Your task to perform on an android device: stop showing notifications on the lock screen Image 0: 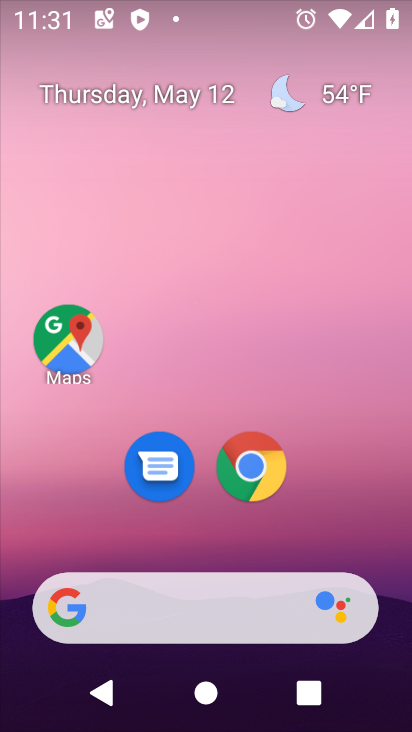
Step 0: drag from (400, 518) to (353, 172)
Your task to perform on an android device: stop showing notifications on the lock screen Image 1: 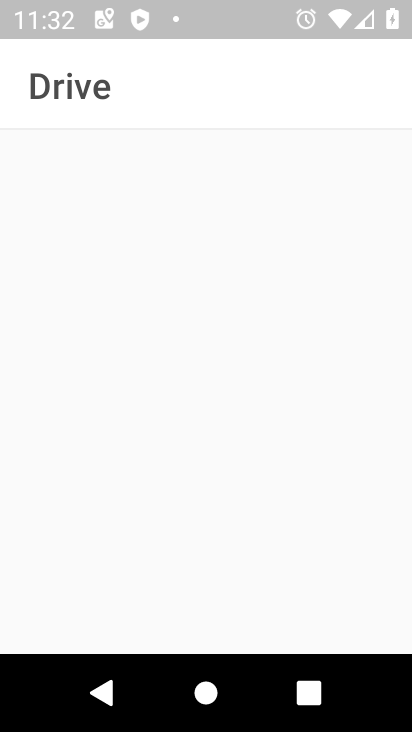
Step 1: press home button
Your task to perform on an android device: stop showing notifications on the lock screen Image 2: 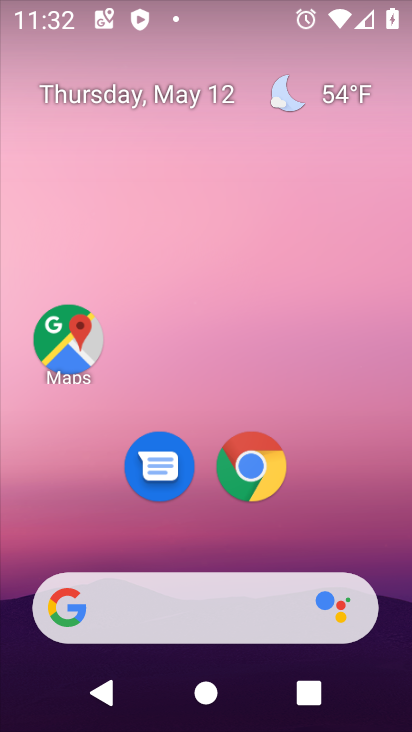
Step 2: drag from (381, 501) to (354, 122)
Your task to perform on an android device: stop showing notifications on the lock screen Image 3: 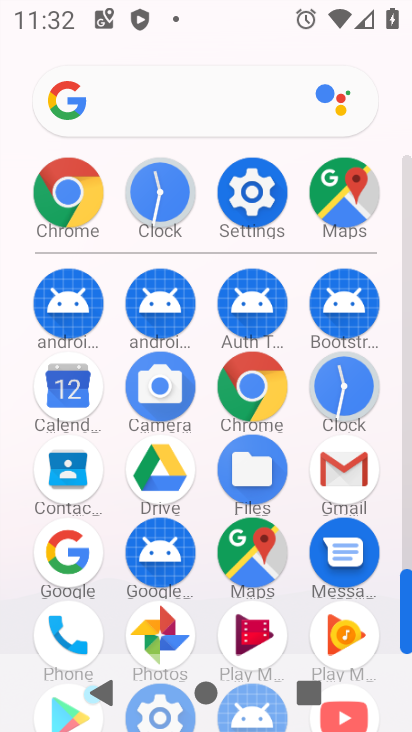
Step 3: drag from (386, 596) to (388, 305)
Your task to perform on an android device: stop showing notifications on the lock screen Image 4: 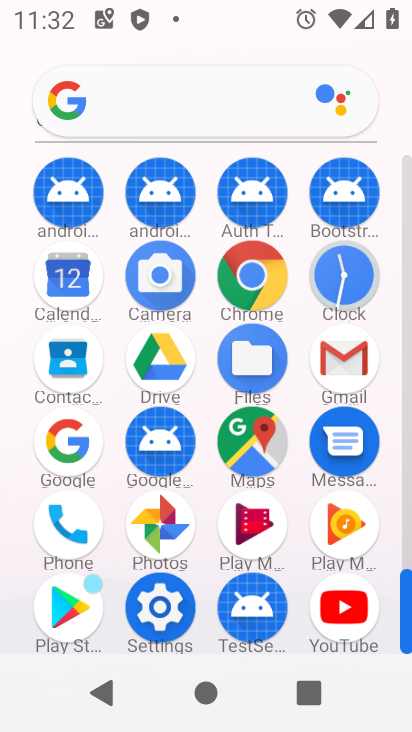
Step 4: click (173, 587)
Your task to perform on an android device: stop showing notifications on the lock screen Image 5: 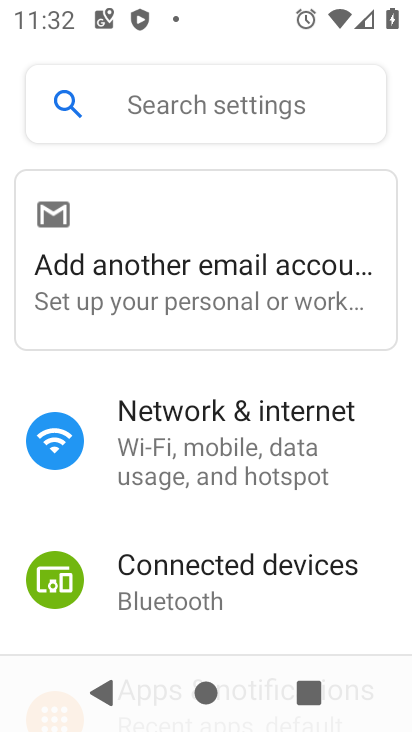
Step 5: drag from (223, 631) to (279, 376)
Your task to perform on an android device: stop showing notifications on the lock screen Image 6: 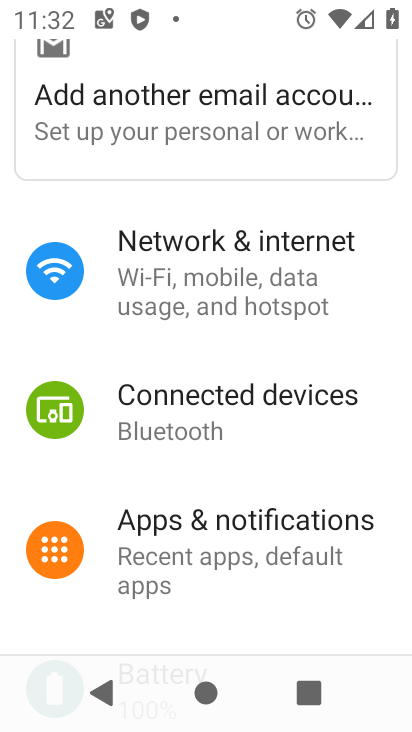
Step 6: click (261, 523)
Your task to perform on an android device: stop showing notifications on the lock screen Image 7: 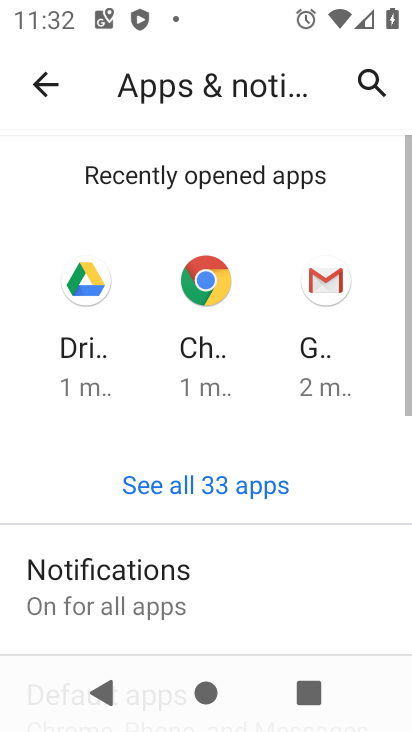
Step 7: drag from (275, 583) to (282, 185)
Your task to perform on an android device: stop showing notifications on the lock screen Image 8: 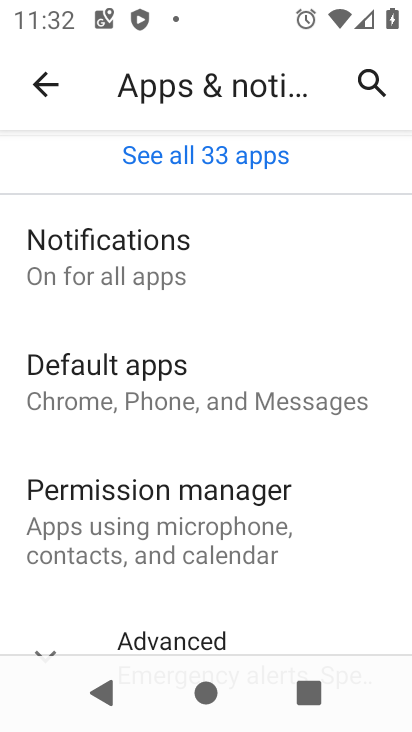
Step 8: click (169, 259)
Your task to perform on an android device: stop showing notifications on the lock screen Image 9: 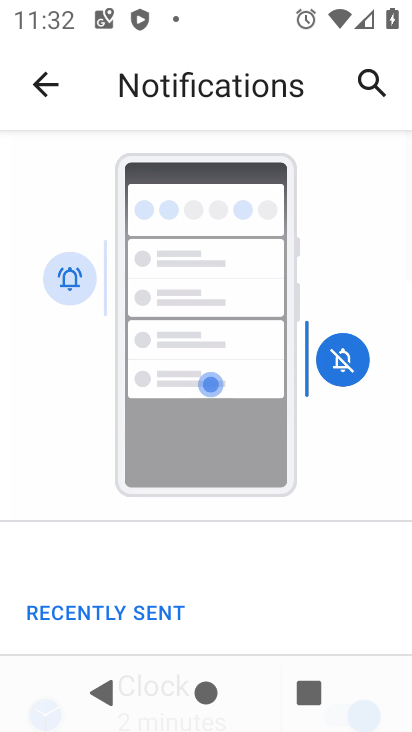
Step 9: drag from (162, 584) to (358, 240)
Your task to perform on an android device: stop showing notifications on the lock screen Image 10: 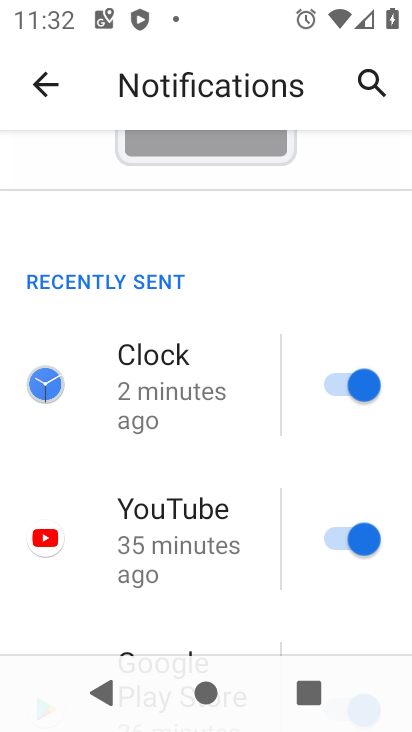
Step 10: drag from (191, 569) to (261, 218)
Your task to perform on an android device: stop showing notifications on the lock screen Image 11: 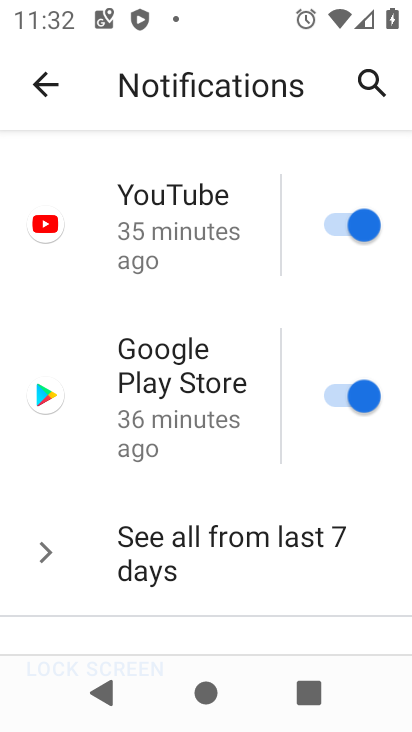
Step 11: drag from (230, 591) to (290, 213)
Your task to perform on an android device: stop showing notifications on the lock screen Image 12: 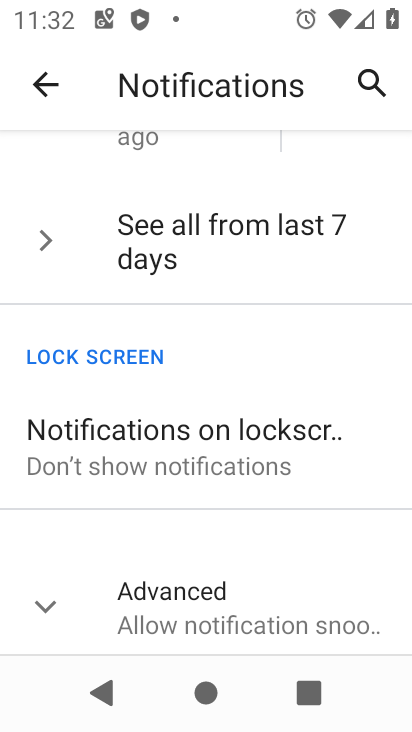
Step 12: click (194, 449)
Your task to perform on an android device: stop showing notifications on the lock screen Image 13: 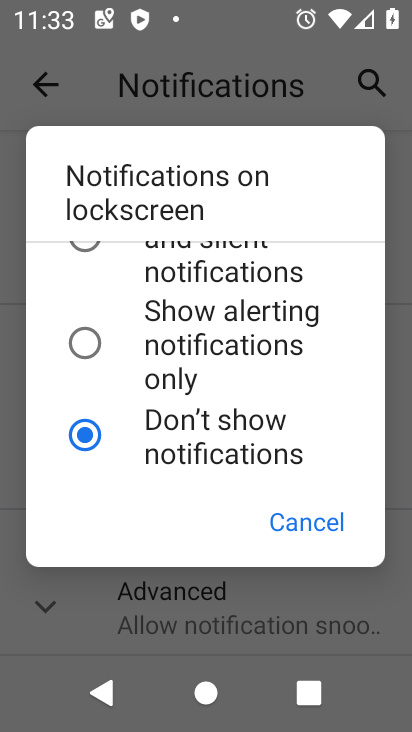
Step 13: task complete